Your task to perform on an android device: turn vacation reply on in the gmail app Image 0: 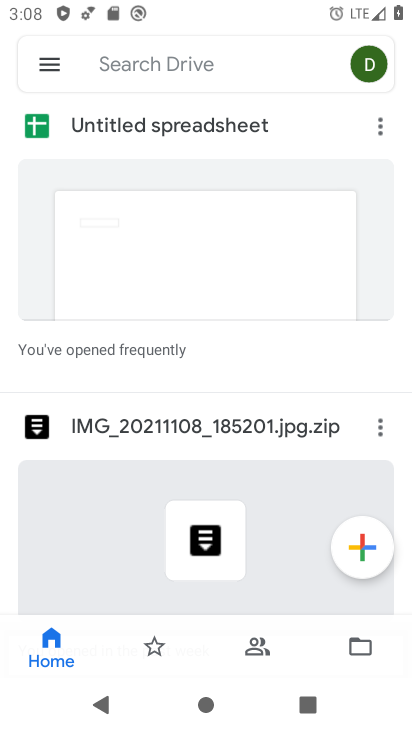
Step 0: press home button
Your task to perform on an android device: turn vacation reply on in the gmail app Image 1: 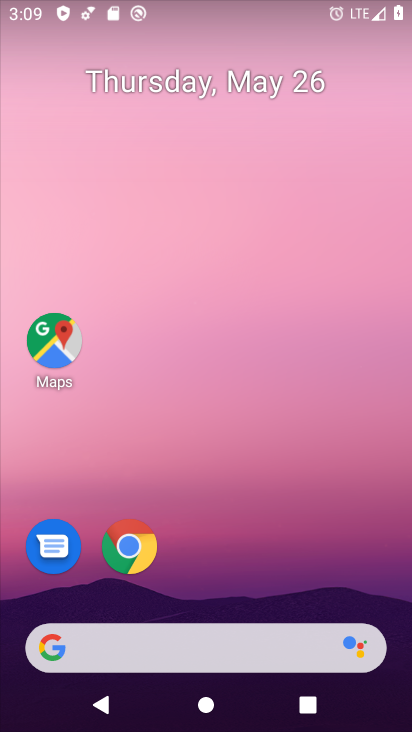
Step 1: drag from (234, 575) to (298, 52)
Your task to perform on an android device: turn vacation reply on in the gmail app Image 2: 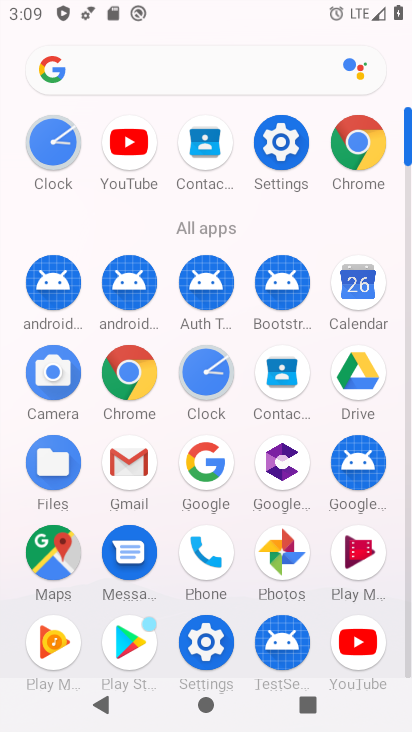
Step 2: click (126, 470)
Your task to perform on an android device: turn vacation reply on in the gmail app Image 3: 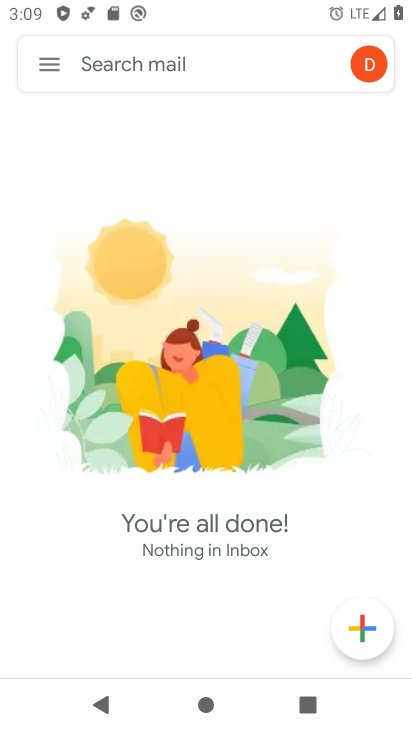
Step 3: click (31, 59)
Your task to perform on an android device: turn vacation reply on in the gmail app Image 4: 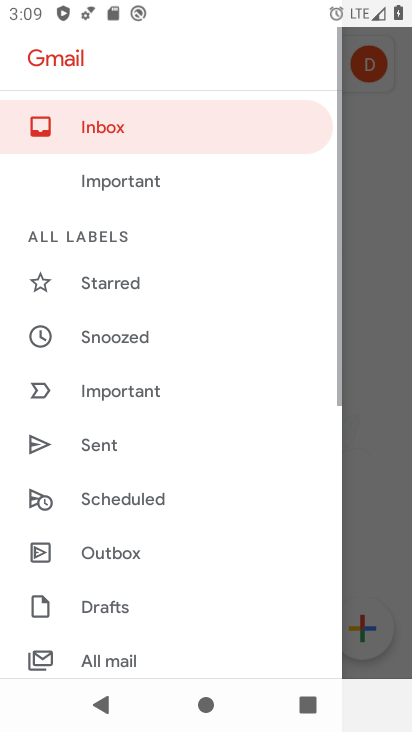
Step 4: drag from (127, 598) to (235, 88)
Your task to perform on an android device: turn vacation reply on in the gmail app Image 5: 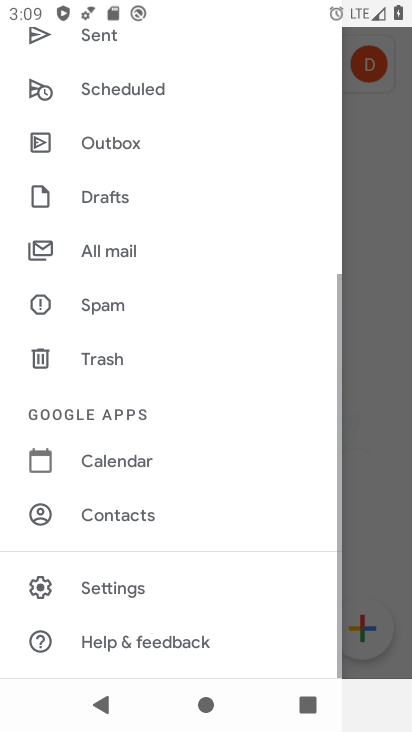
Step 5: click (113, 593)
Your task to perform on an android device: turn vacation reply on in the gmail app Image 6: 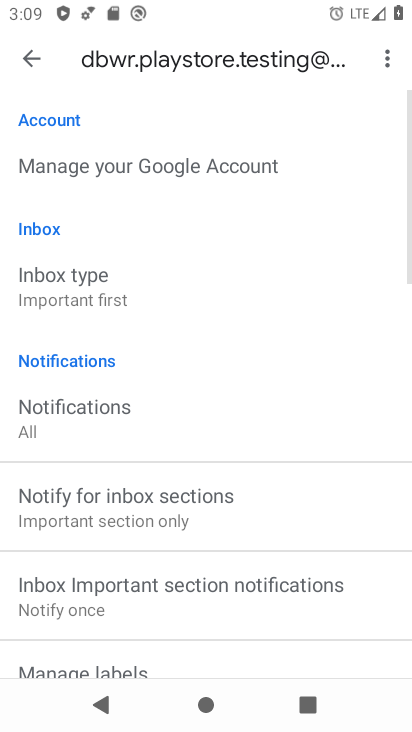
Step 6: drag from (134, 617) to (255, 172)
Your task to perform on an android device: turn vacation reply on in the gmail app Image 7: 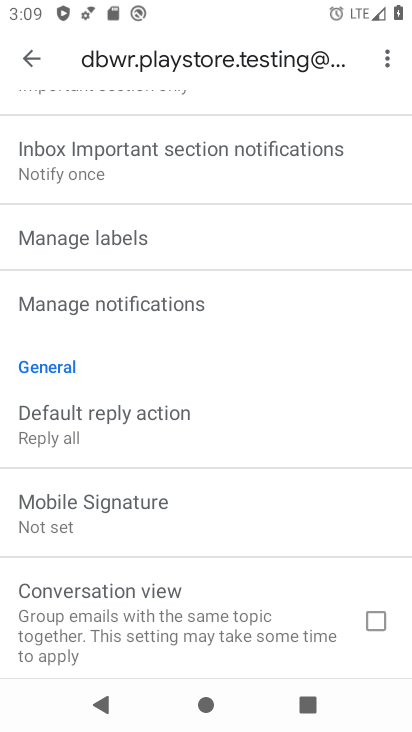
Step 7: drag from (169, 597) to (330, 56)
Your task to perform on an android device: turn vacation reply on in the gmail app Image 8: 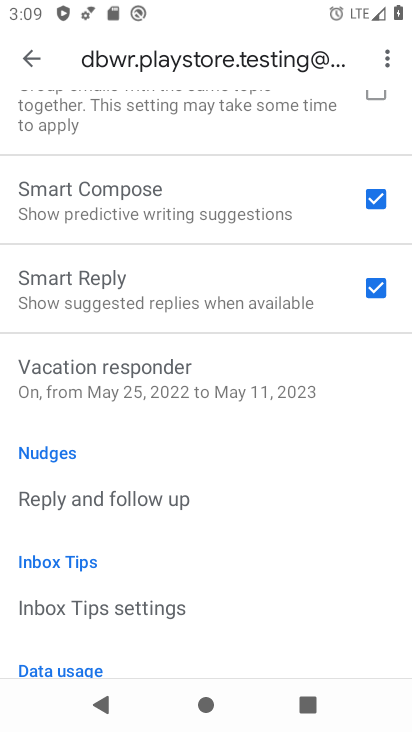
Step 8: click (124, 383)
Your task to perform on an android device: turn vacation reply on in the gmail app Image 9: 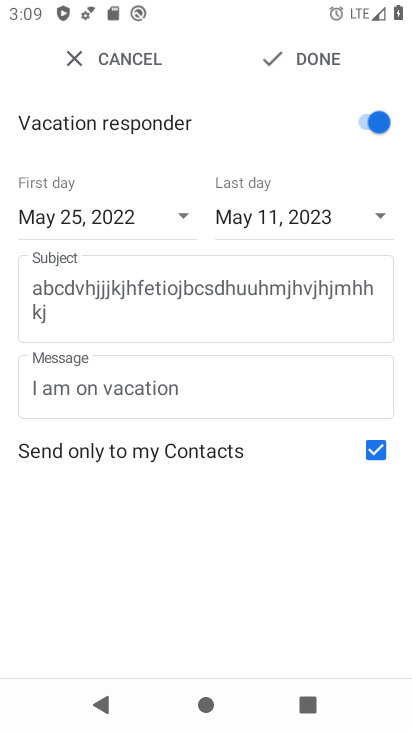
Step 9: task complete